Your task to perform on an android device: turn on priority inbox in the gmail app Image 0: 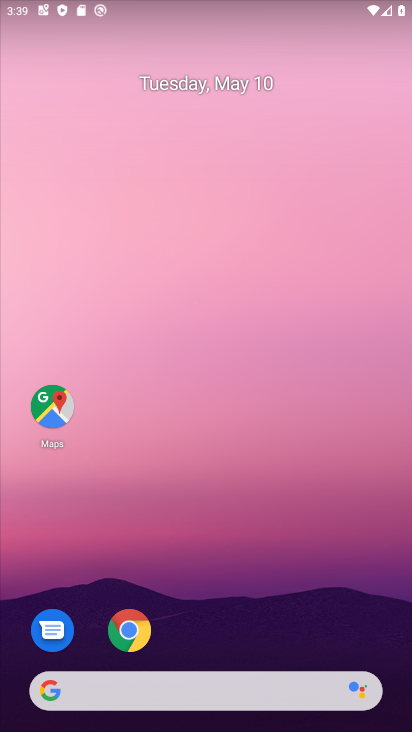
Step 0: drag from (175, 607) to (250, 62)
Your task to perform on an android device: turn on priority inbox in the gmail app Image 1: 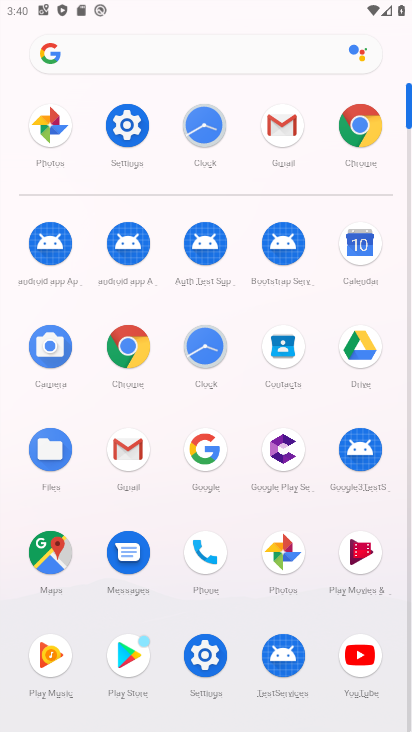
Step 1: click (124, 444)
Your task to perform on an android device: turn on priority inbox in the gmail app Image 2: 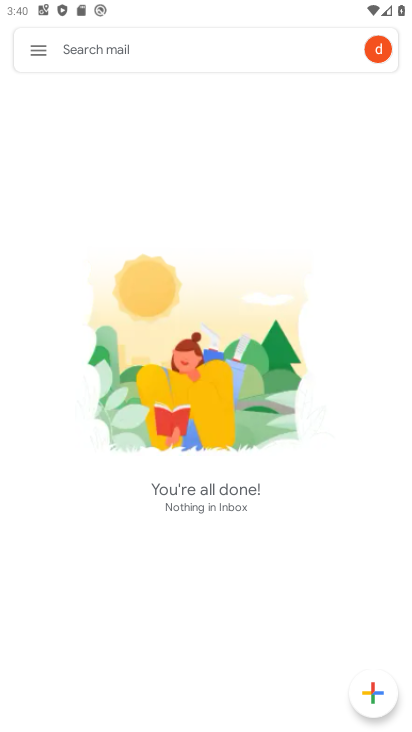
Step 2: click (34, 41)
Your task to perform on an android device: turn on priority inbox in the gmail app Image 3: 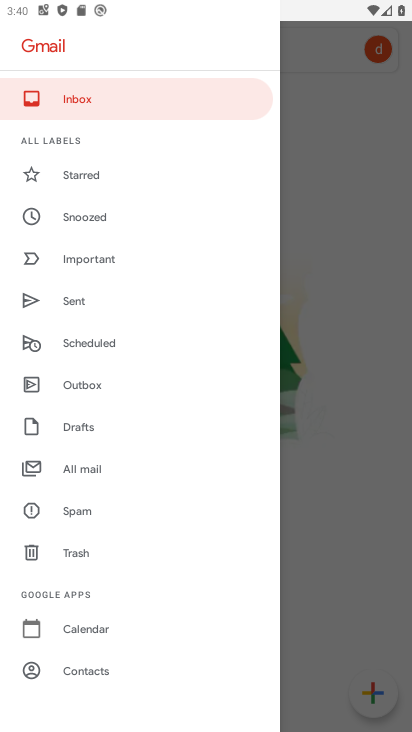
Step 3: drag from (114, 693) to (145, 212)
Your task to perform on an android device: turn on priority inbox in the gmail app Image 4: 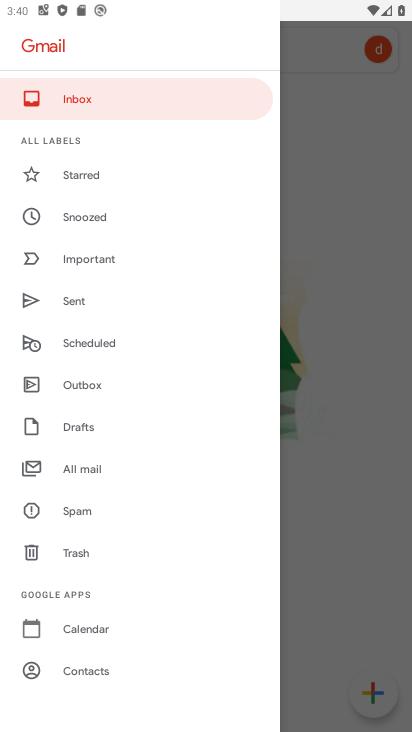
Step 4: drag from (124, 692) to (150, 257)
Your task to perform on an android device: turn on priority inbox in the gmail app Image 5: 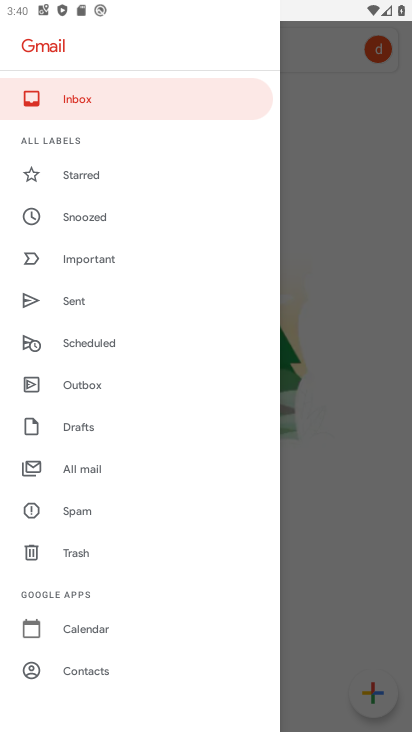
Step 5: drag from (148, 691) to (168, 131)
Your task to perform on an android device: turn on priority inbox in the gmail app Image 6: 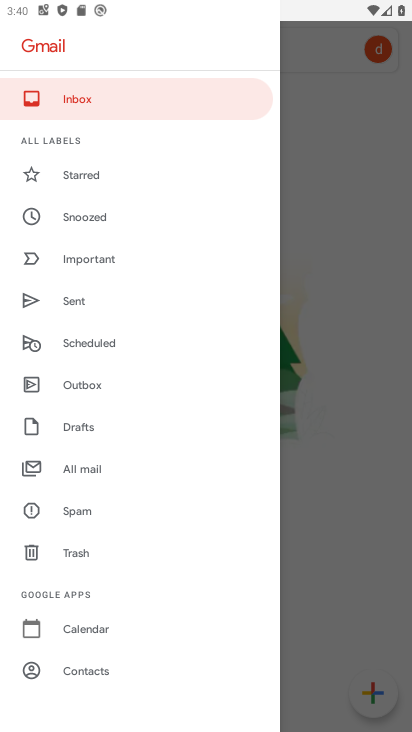
Step 6: drag from (226, 610) to (206, 120)
Your task to perform on an android device: turn on priority inbox in the gmail app Image 7: 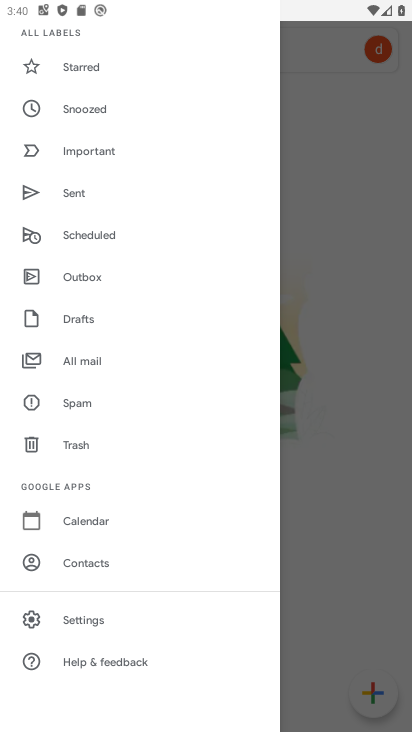
Step 7: click (60, 640)
Your task to perform on an android device: turn on priority inbox in the gmail app Image 8: 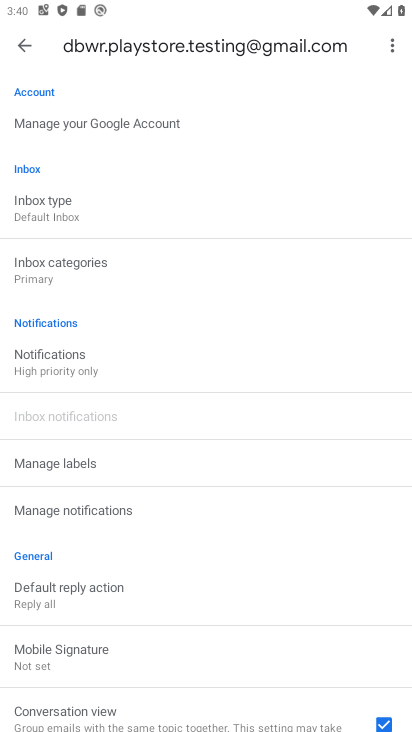
Step 8: click (114, 222)
Your task to perform on an android device: turn on priority inbox in the gmail app Image 9: 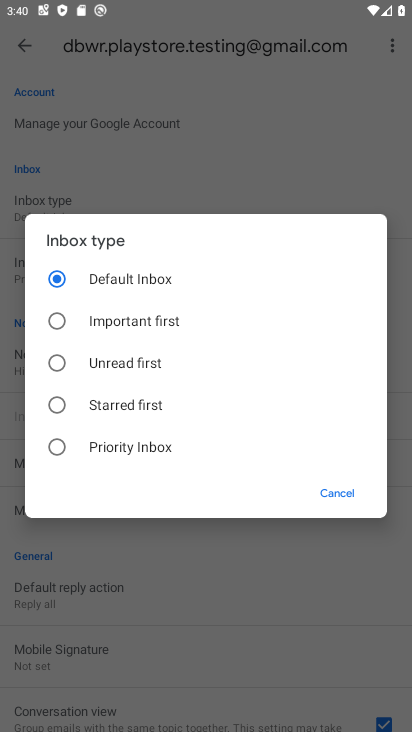
Step 9: click (134, 449)
Your task to perform on an android device: turn on priority inbox in the gmail app Image 10: 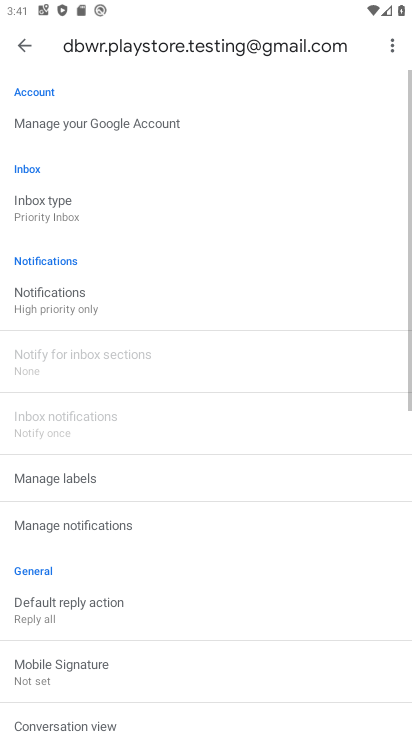
Step 10: task complete